Your task to perform on an android device: turn on translation in the chrome app Image 0: 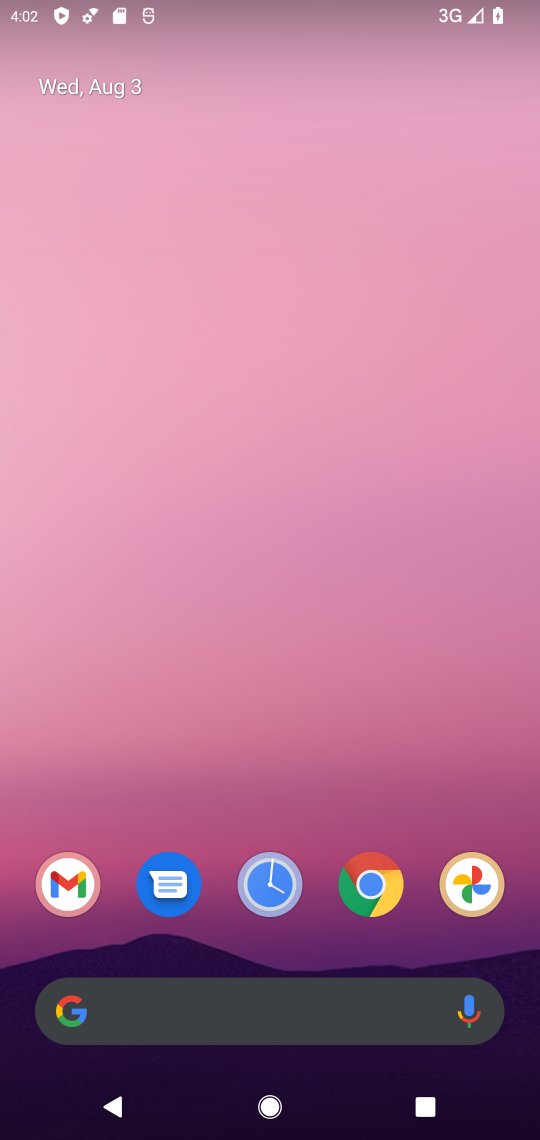
Step 0: click (365, 911)
Your task to perform on an android device: turn on translation in the chrome app Image 1: 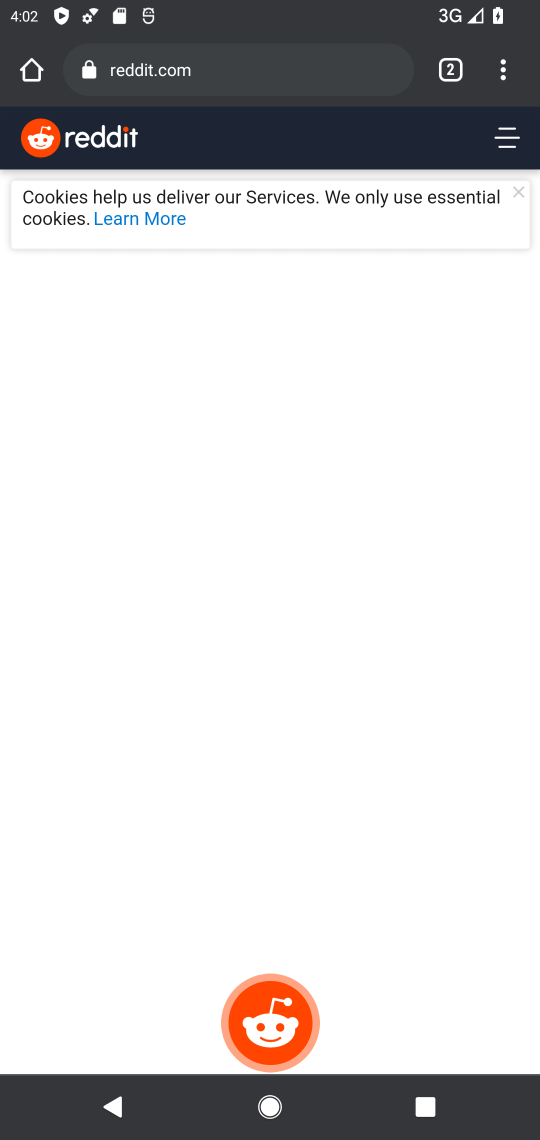
Step 1: click (511, 68)
Your task to perform on an android device: turn on translation in the chrome app Image 2: 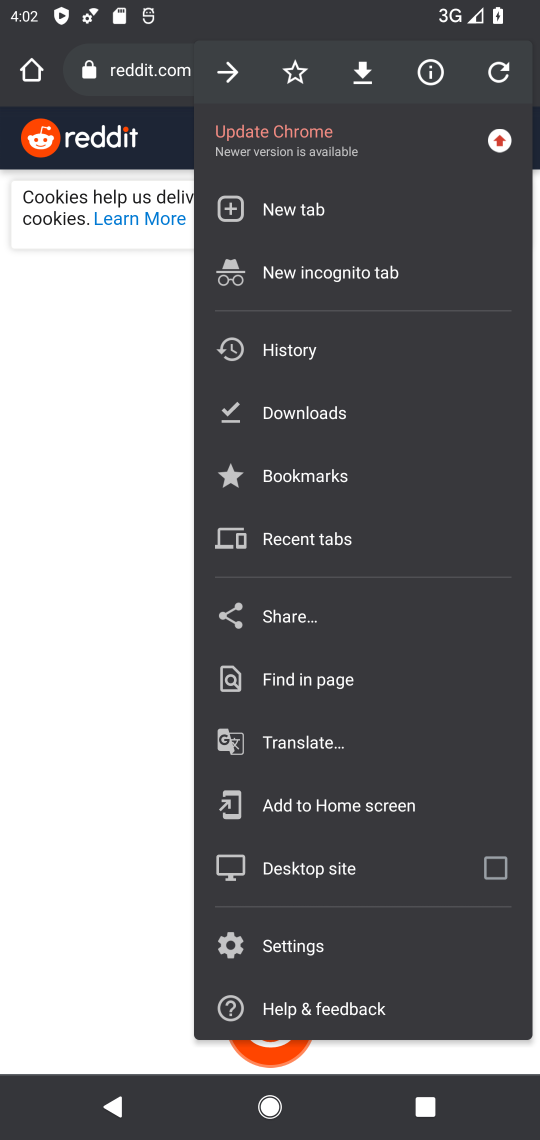
Step 2: click (278, 945)
Your task to perform on an android device: turn on translation in the chrome app Image 3: 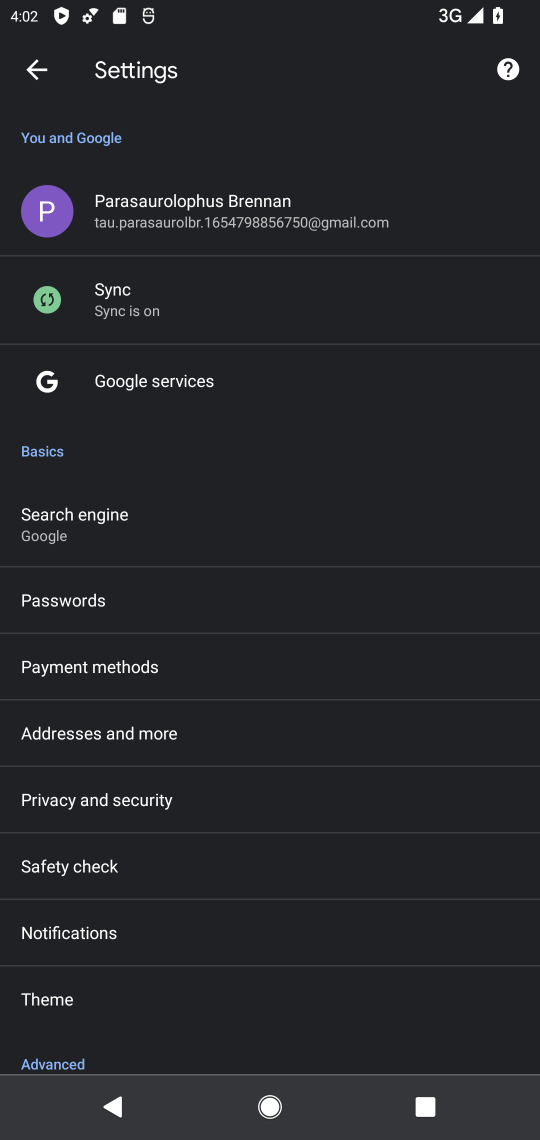
Step 3: task complete